Your task to perform on an android device: turn on bluetooth scan Image 0: 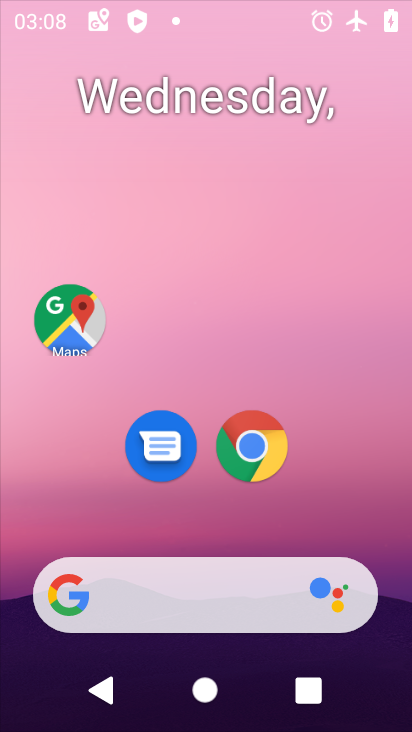
Step 0: click (211, 161)
Your task to perform on an android device: turn on bluetooth scan Image 1: 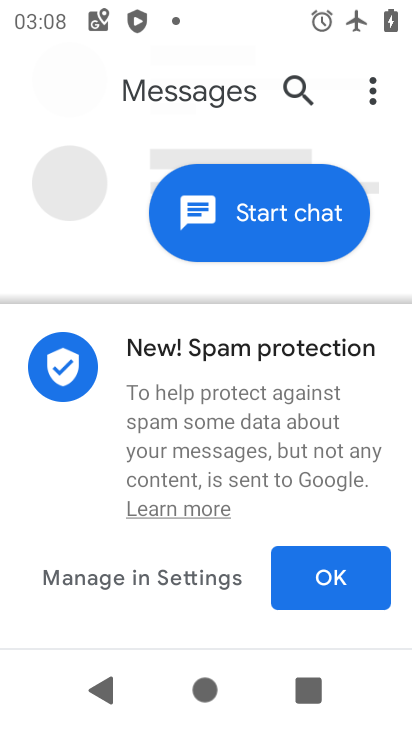
Step 1: press home button
Your task to perform on an android device: turn on bluetooth scan Image 2: 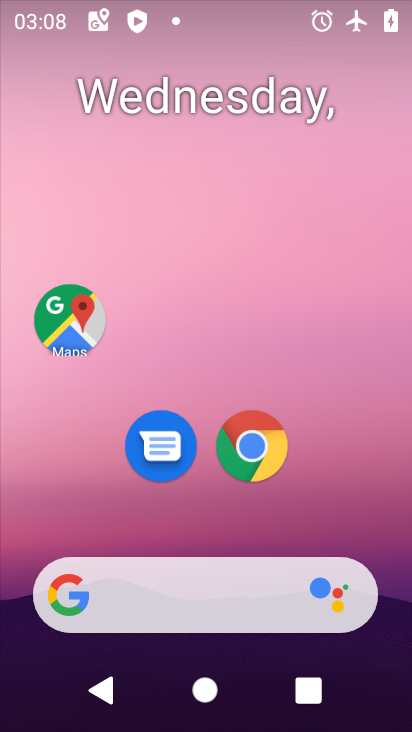
Step 2: drag from (200, 532) to (215, 194)
Your task to perform on an android device: turn on bluetooth scan Image 3: 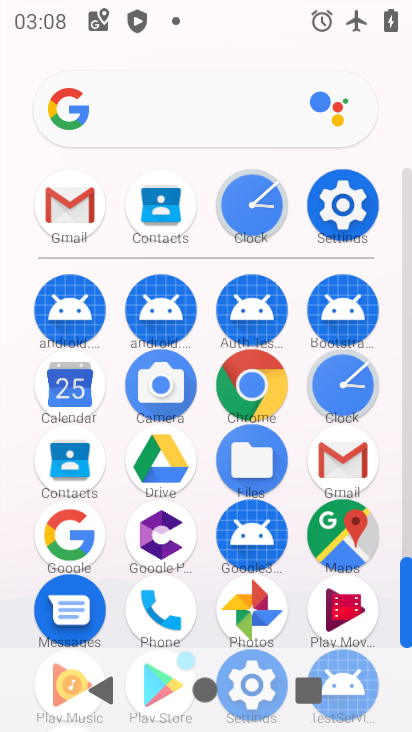
Step 3: click (346, 196)
Your task to perform on an android device: turn on bluetooth scan Image 4: 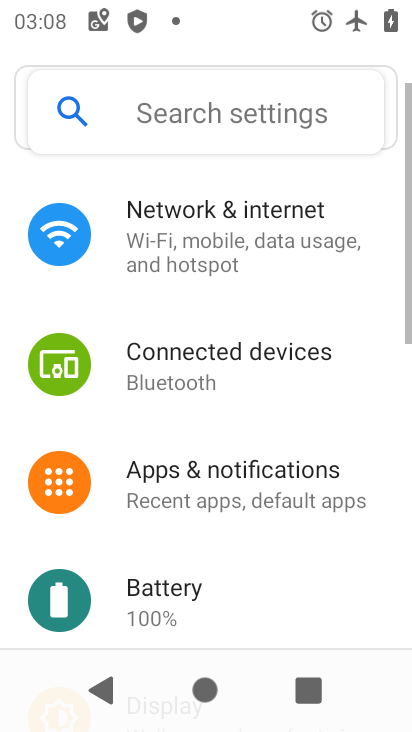
Step 4: drag from (254, 528) to (241, 266)
Your task to perform on an android device: turn on bluetooth scan Image 5: 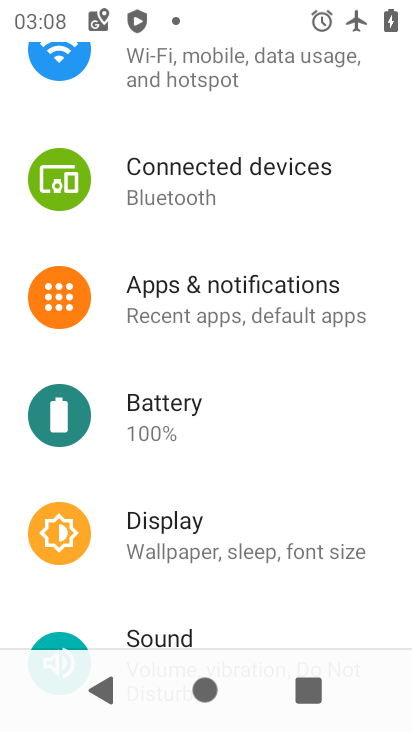
Step 5: drag from (208, 585) to (226, 418)
Your task to perform on an android device: turn on bluetooth scan Image 6: 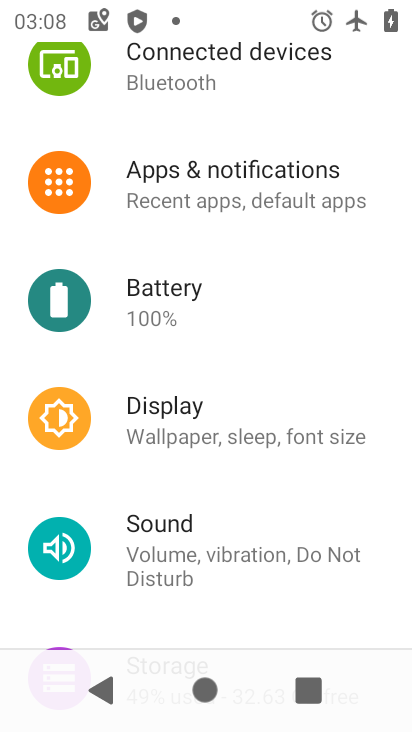
Step 6: drag from (229, 578) to (256, 278)
Your task to perform on an android device: turn on bluetooth scan Image 7: 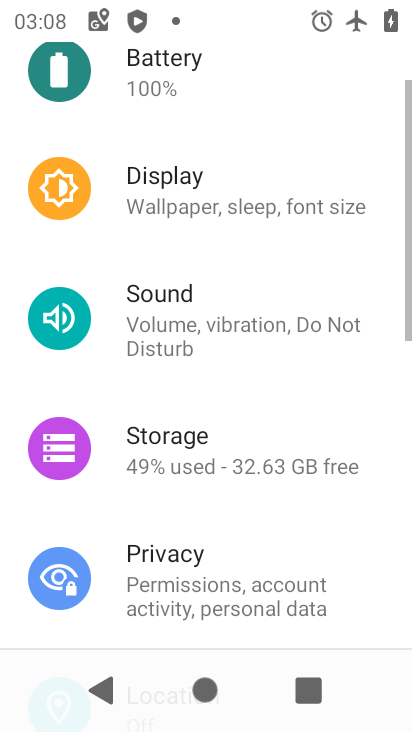
Step 7: drag from (225, 542) to (288, 200)
Your task to perform on an android device: turn on bluetooth scan Image 8: 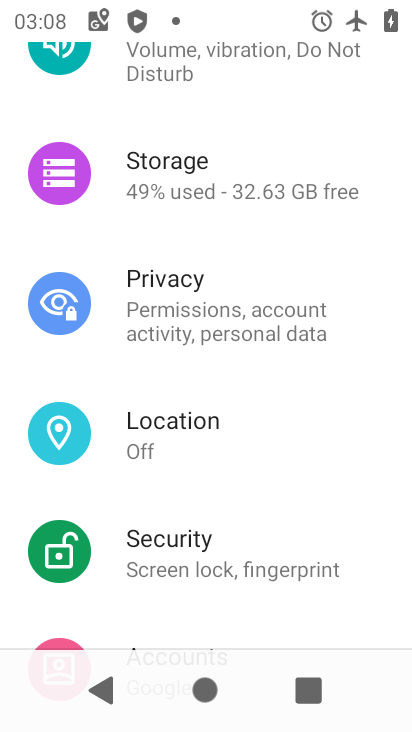
Step 8: click (227, 408)
Your task to perform on an android device: turn on bluetooth scan Image 9: 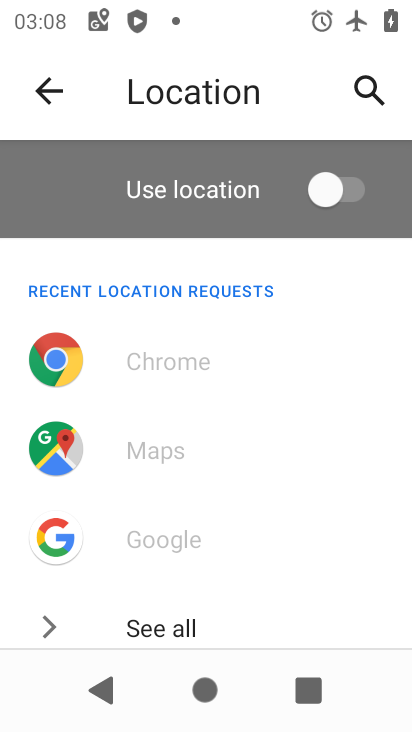
Step 9: drag from (250, 562) to (288, 191)
Your task to perform on an android device: turn on bluetooth scan Image 10: 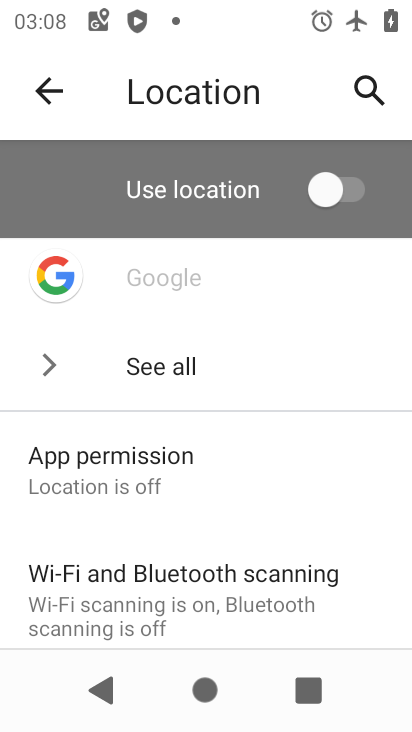
Step 10: drag from (263, 516) to (286, 335)
Your task to perform on an android device: turn on bluetooth scan Image 11: 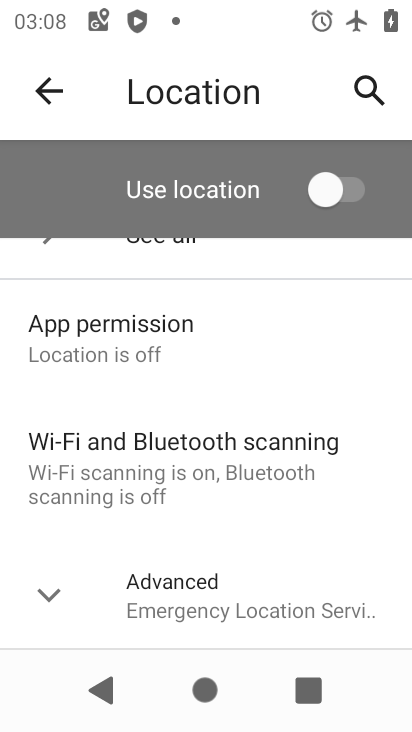
Step 11: click (240, 476)
Your task to perform on an android device: turn on bluetooth scan Image 12: 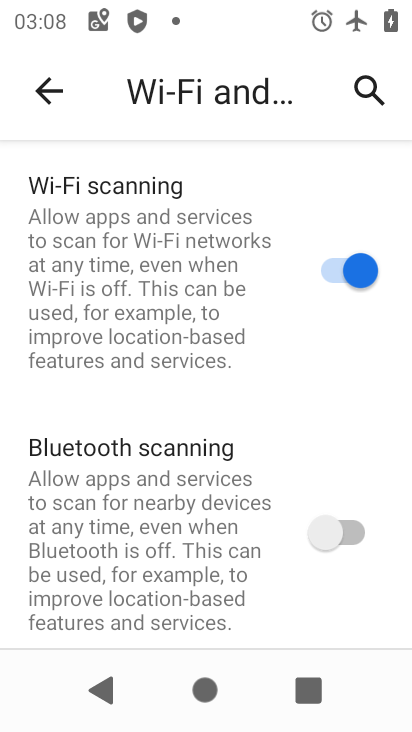
Step 12: click (356, 538)
Your task to perform on an android device: turn on bluetooth scan Image 13: 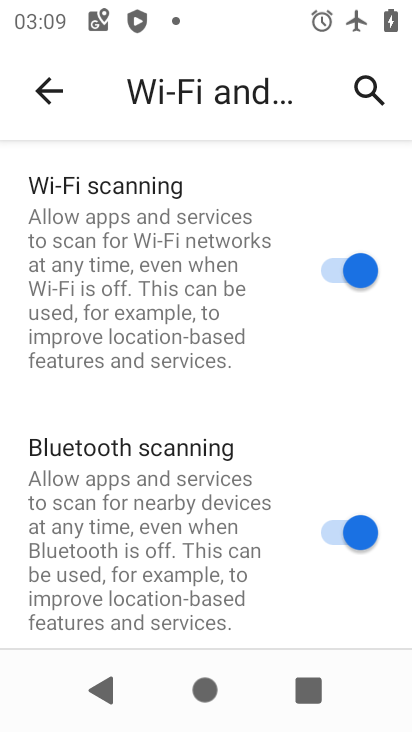
Step 13: task complete